Your task to perform on an android device: toggle sleep mode Image 0: 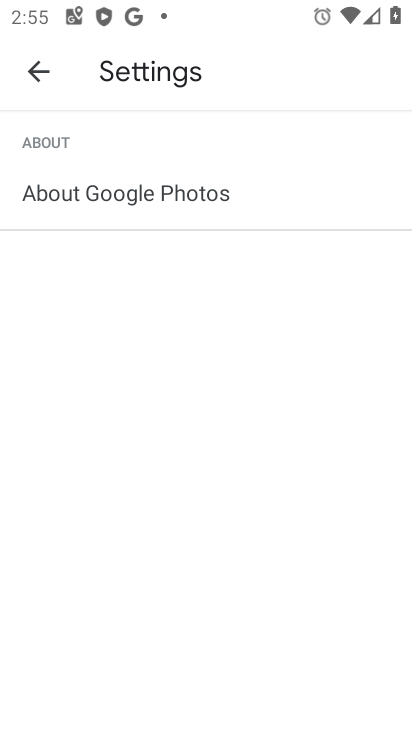
Step 0: press home button
Your task to perform on an android device: toggle sleep mode Image 1: 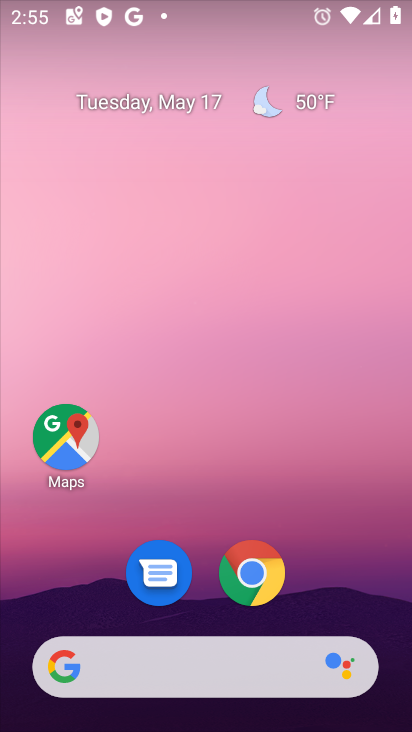
Step 1: drag from (331, 553) to (343, 112)
Your task to perform on an android device: toggle sleep mode Image 2: 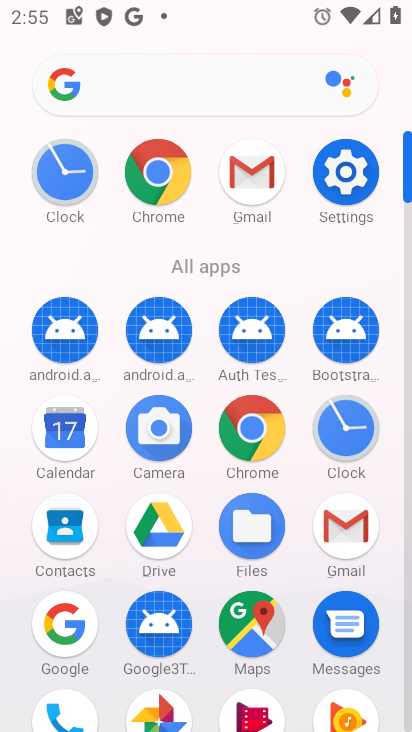
Step 2: click (357, 193)
Your task to perform on an android device: toggle sleep mode Image 3: 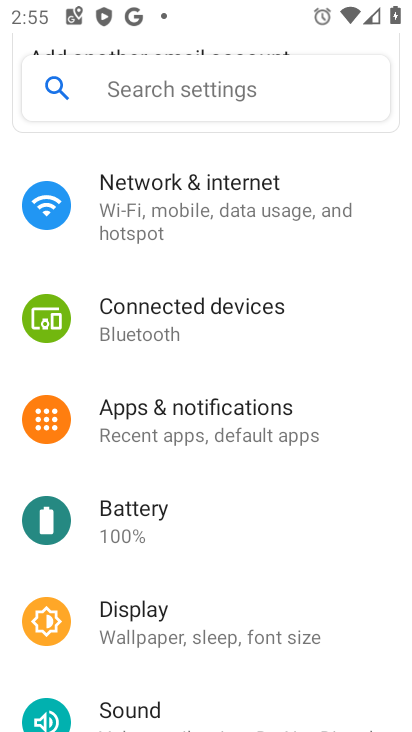
Step 3: click (120, 612)
Your task to perform on an android device: toggle sleep mode Image 4: 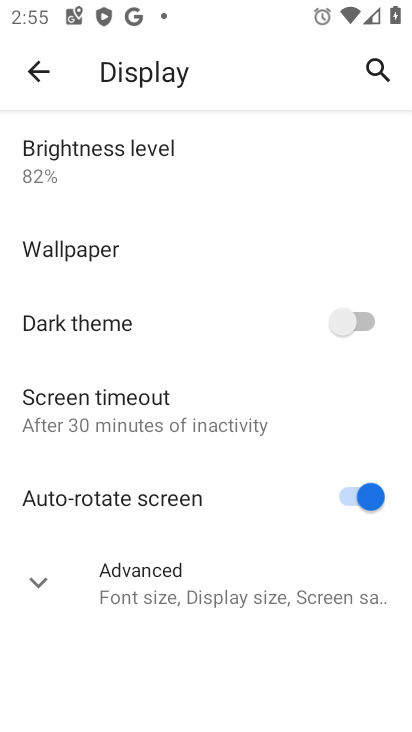
Step 4: click (215, 404)
Your task to perform on an android device: toggle sleep mode Image 5: 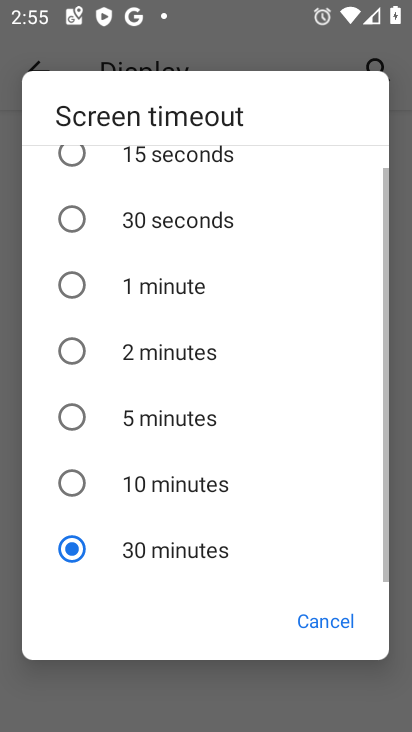
Step 5: click (175, 478)
Your task to perform on an android device: toggle sleep mode Image 6: 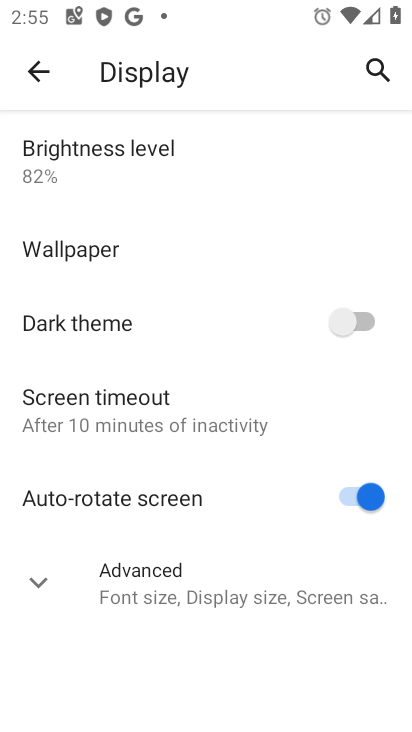
Step 6: task complete